Your task to perform on an android device: Open Google Maps Image 0: 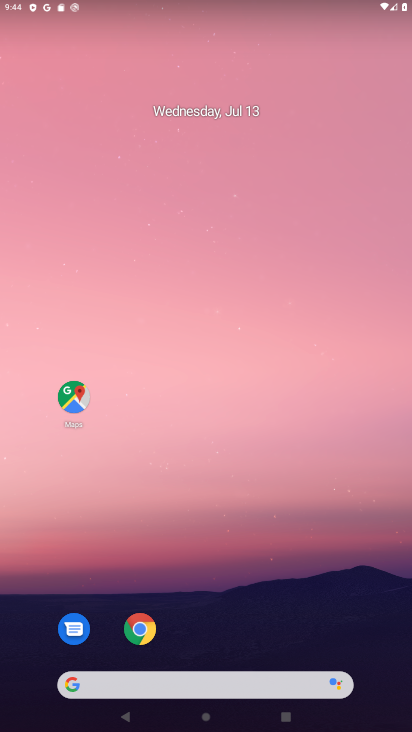
Step 0: drag from (296, 625) to (269, 10)
Your task to perform on an android device: Open Google Maps Image 1: 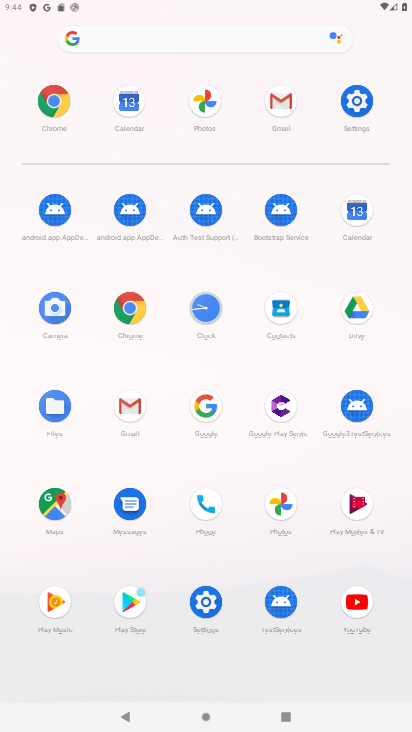
Step 1: click (46, 509)
Your task to perform on an android device: Open Google Maps Image 2: 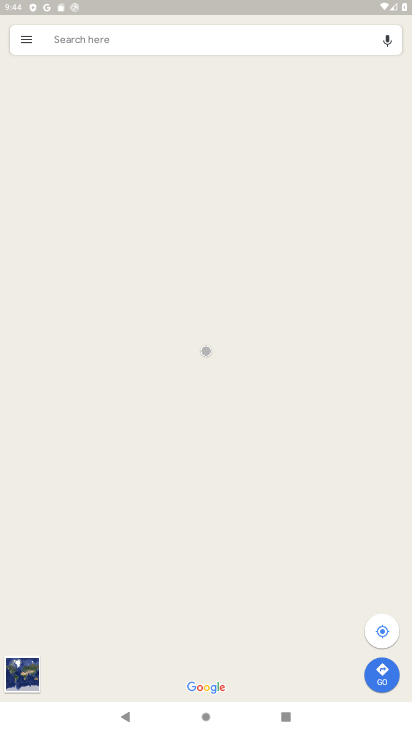
Step 2: task complete